Your task to perform on an android device: Open Google Image 0: 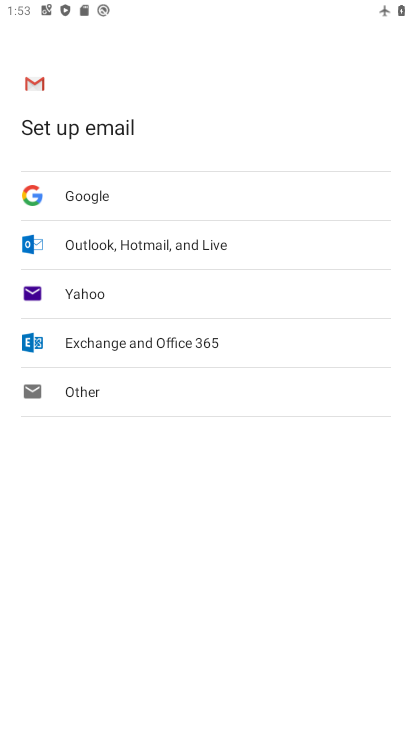
Step 0: press home button
Your task to perform on an android device: Open Google Image 1: 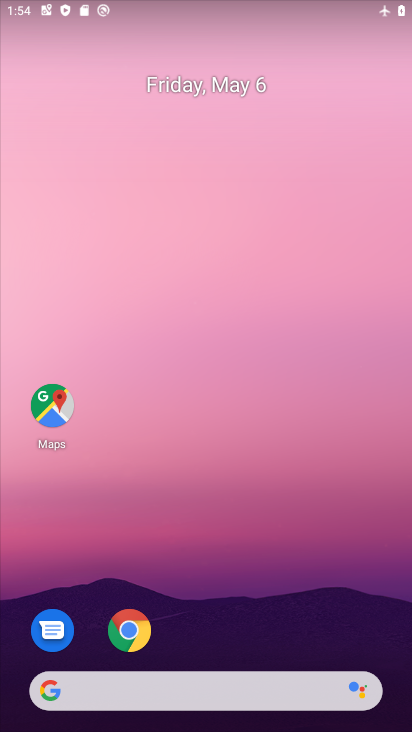
Step 1: drag from (187, 685) to (272, 211)
Your task to perform on an android device: Open Google Image 2: 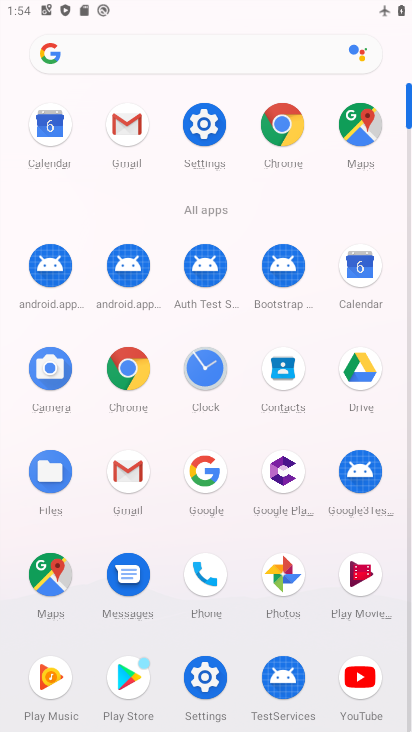
Step 2: click (195, 480)
Your task to perform on an android device: Open Google Image 3: 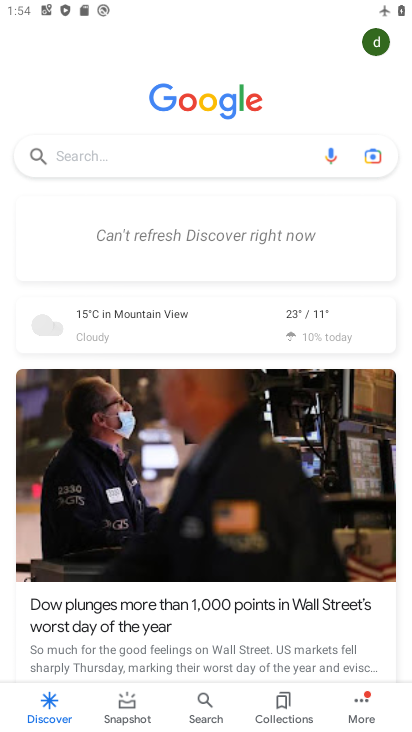
Step 3: task complete